Your task to perform on an android device: Open calendar and show me the third week of next month Image 0: 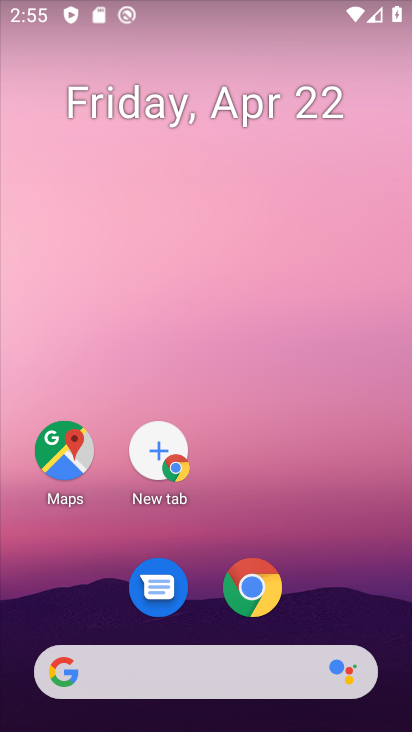
Step 0: click (137, 115)
Your task to perform on an android device: Open calendar and show me the third week of next month Image 1: 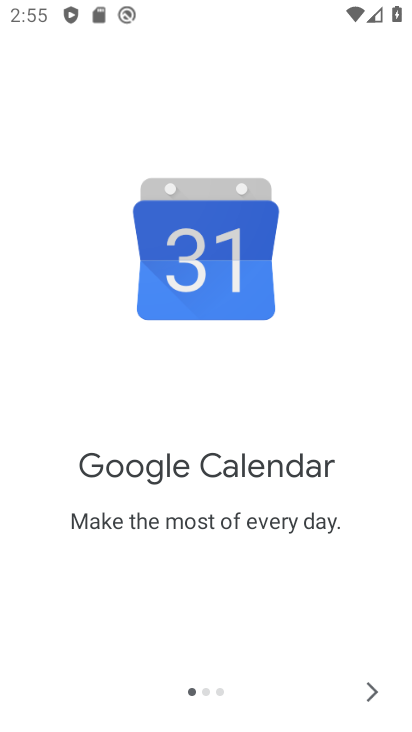
Step 1: click (376, 688)
Your task to perform on an android device: Open calendar and show me the third week of next month Image 2: 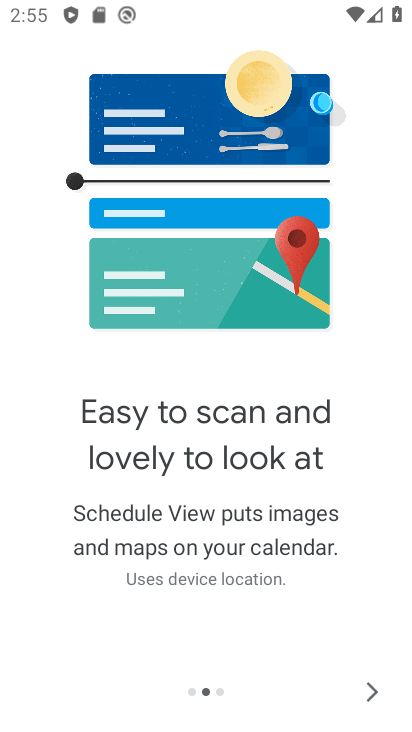
Step 2: click (376, 688)
Your task to perform on an android device: Open calendar and show me the third week of next month Image 3: 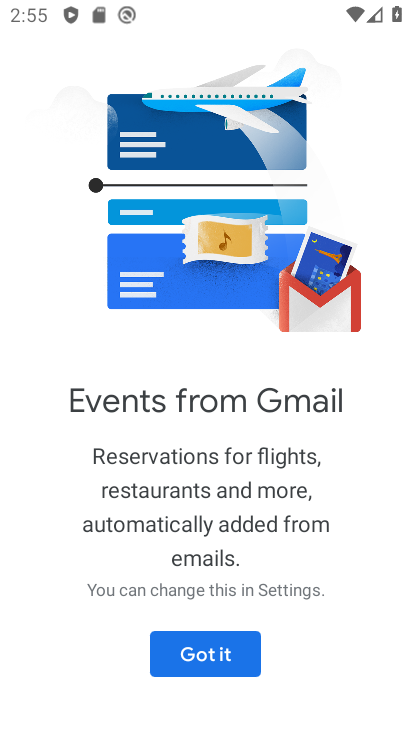
Step 3: click (209, 657)
Your task to perform on an android device: Open calendar and show me the third week of next month Image 4: 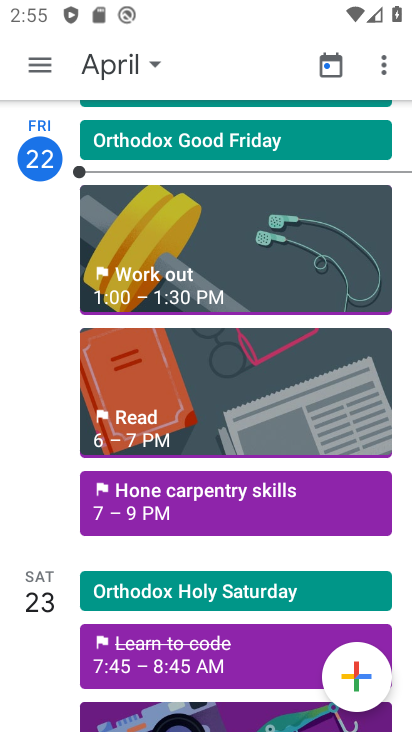
Step 4: click (25, 76)
Your task to perform on an android device: Open calendar and show me the third week of next month Image 5: 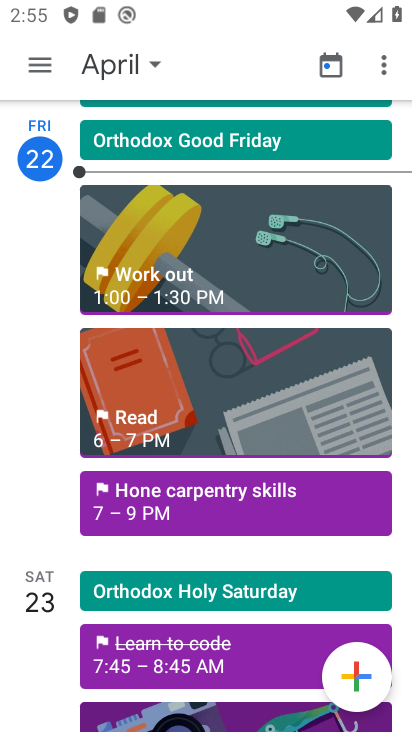
Step 5: click (36, 66)
Your task to perform on an android device: Open calendar and show me the third week of next month Image 6: 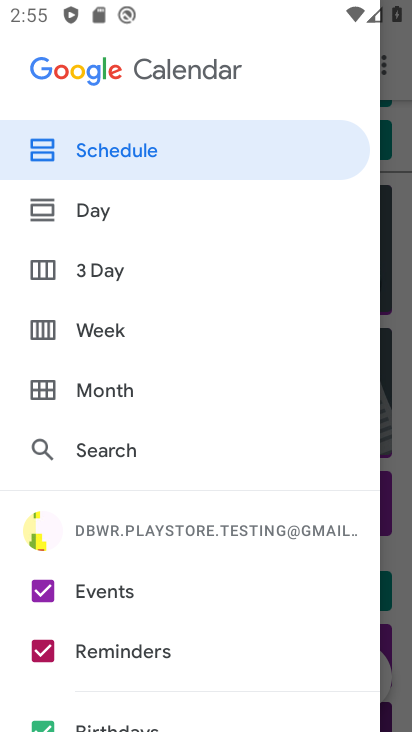
Step 6: click (401, 311)
Your task to perform on an android device: Open calendar and show me the third week of next month Image 7: 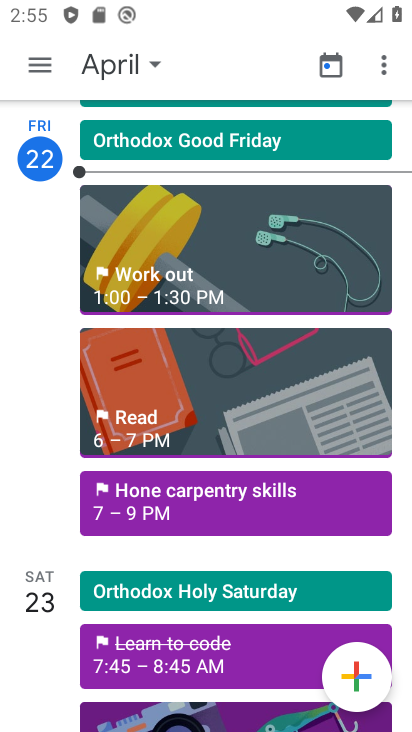
Step 7: click (127, 71)
Your task to perform on an android device: Open calendar and show me the third week of next month Image 8: 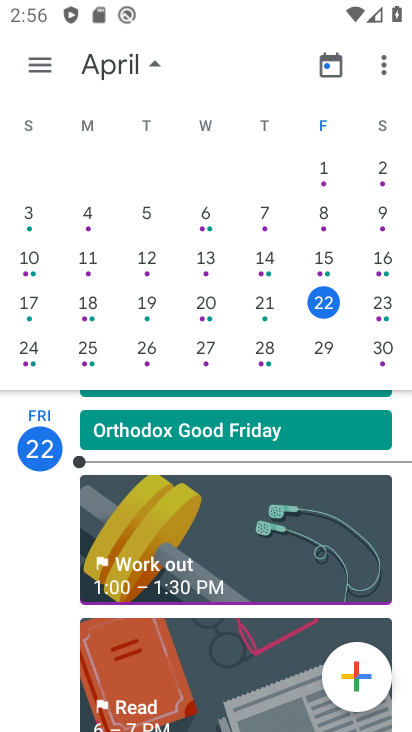
Step 8: drag from (369, 323) to (16, 263)
Your task to perform on an android device: Open calendar and show me the third week of next month Image 9: 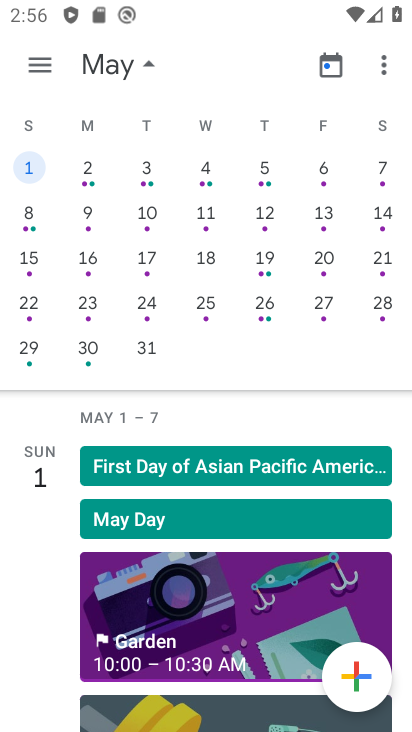
Step 9: click (273, 248)
Your task to perform on an android device: Open calendar and show me the third week of next month Image 10: 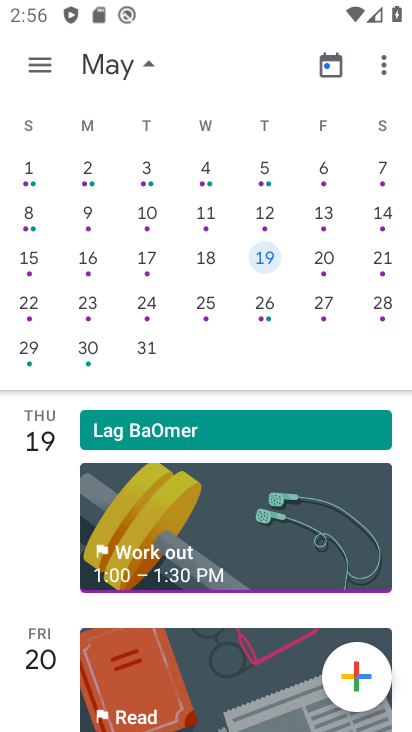
Step 10: task complete